Your task to perform on an android device: Open privacy settings Image 0: 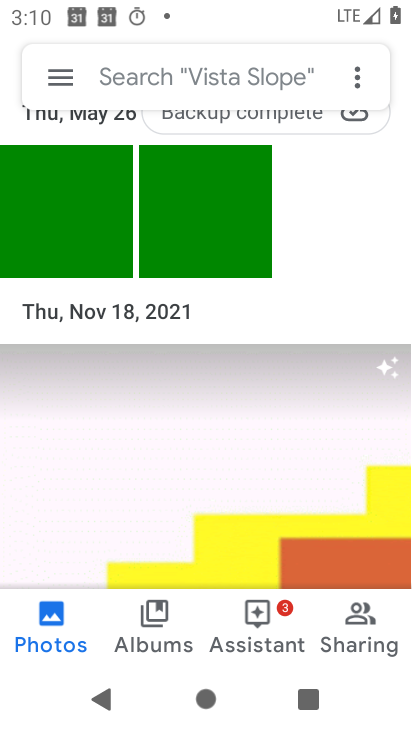
Step 0: press home button
Your task to perform on an android device: Open privacy settings Image 1: 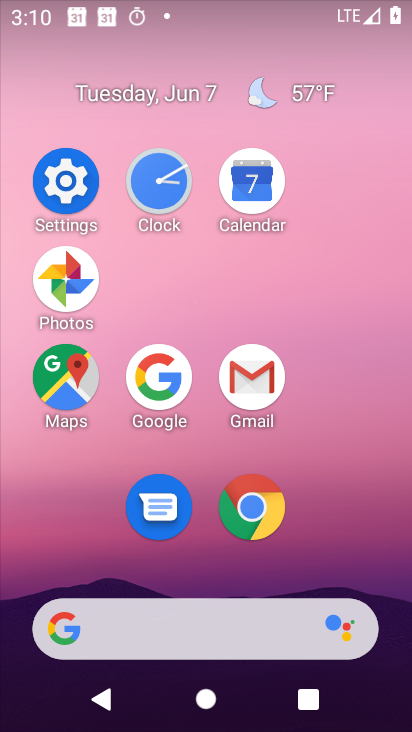
Step 1: click (81, 194)
Your task to perform on an android device: Open privacy settings Image 2: 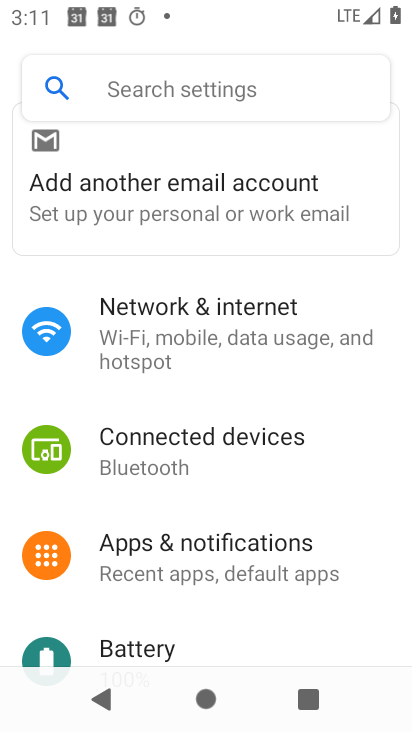
Step 2: drag from (295, 568) to (234, 188)
Your task to perform on an android device: Open privacy settings Image 3: 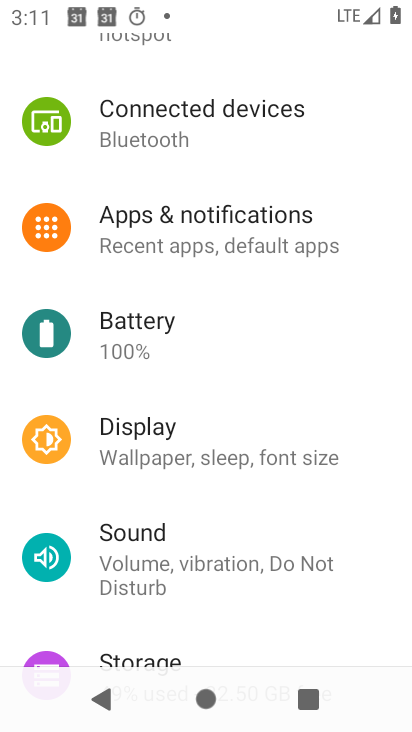
Step 3: drag from (223, 491) to (224, 187)
Your task to perform on an android device: Open privacy settings Image 4: 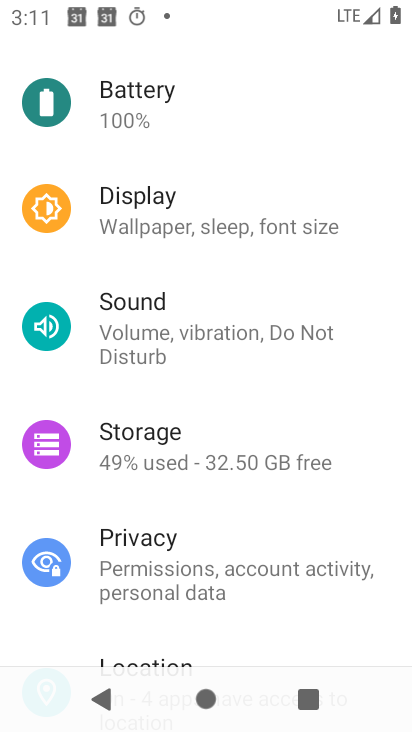
Step 4: click (220, 531)
Your task to perform on an android device: Open privacy settings Image 5: 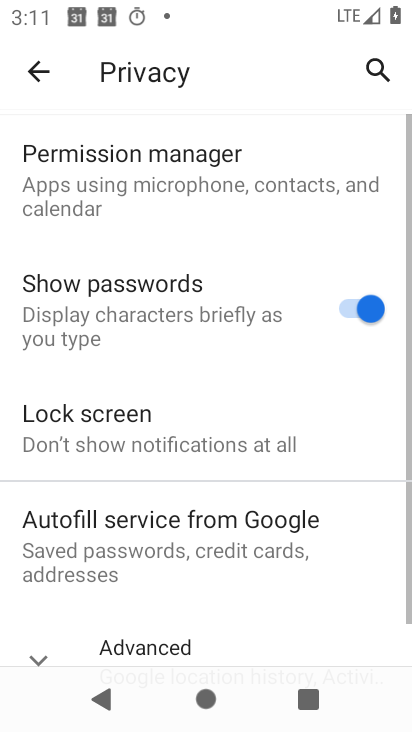
Step 5: task complete